Your task to perform on an android device: Open calendar and show me the fourth week of next month Image 0: 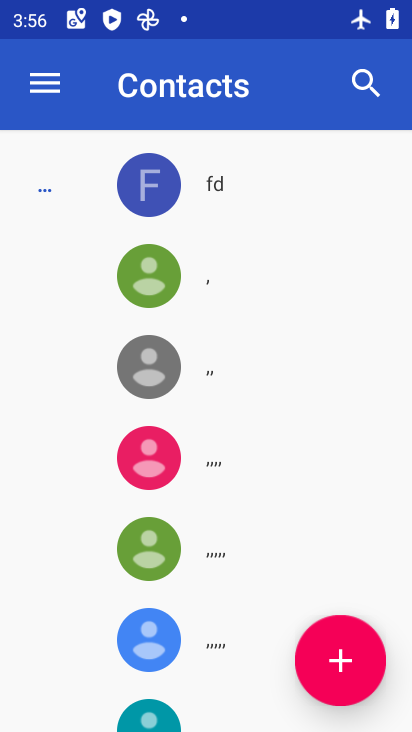
Step 0: drag from (375, 561) to (351, 70)
Your task to perform on an android device: Open calendar and show me the fourth week of next month Image 1: 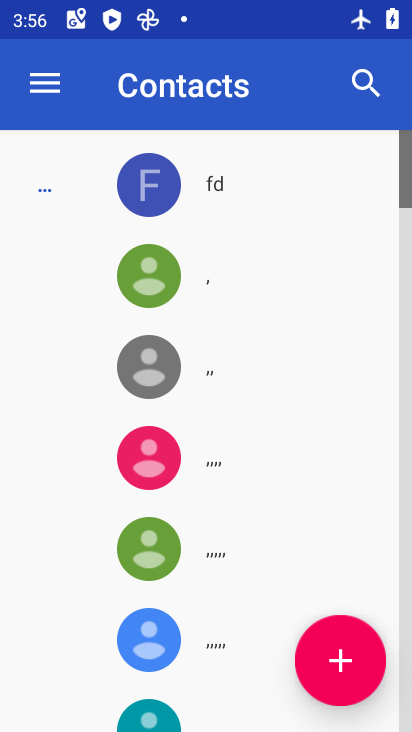
Step 1: press home button
Your task to perform on an android device: Open calendar and show me the fourth week of next month Image 2: 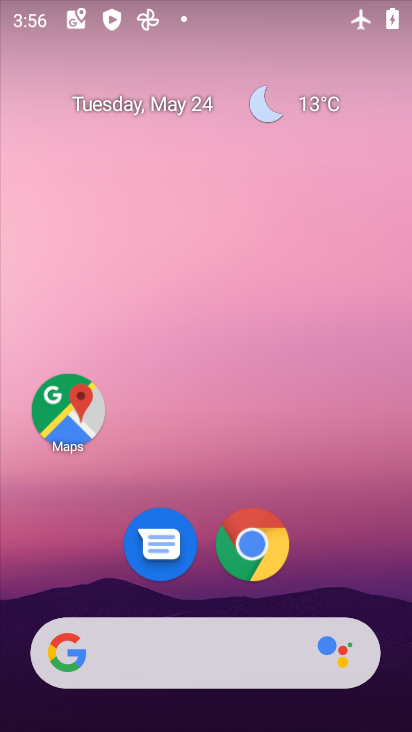
Step 2: drag from (345, 567) to (325, 26)
Your task to perform on an android device: Open calendar and show me the fourth week of next month Image 3: 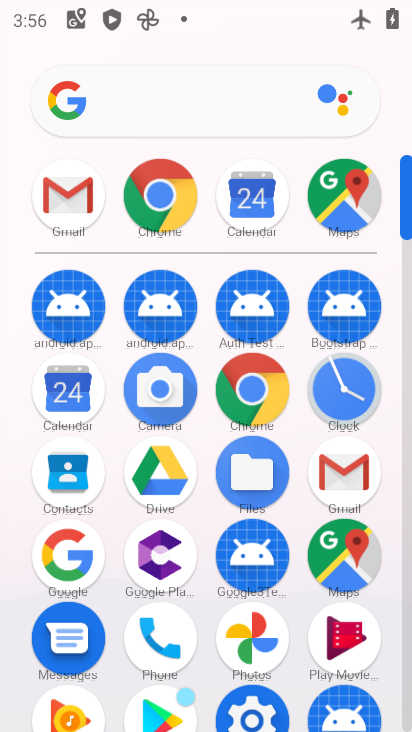
Step 3: click (55, 395)
Your task to perform on an android device: Open calendar and show me the fourth week of next month Image 4: 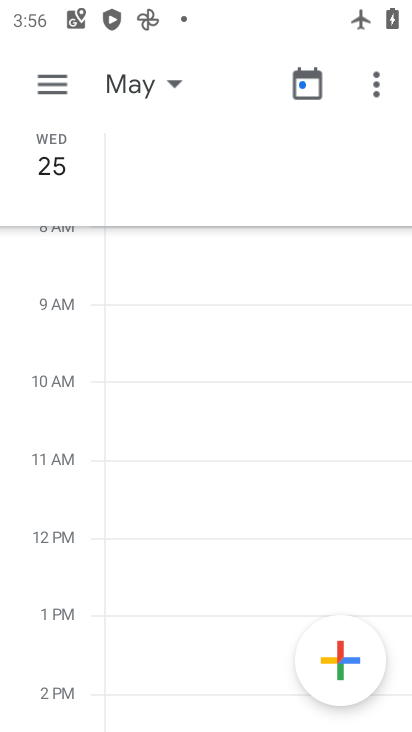
Step 4: click (145, 82)
Your task to perform on an android device: Open calendar and show me the fourth week of next month Image 5: 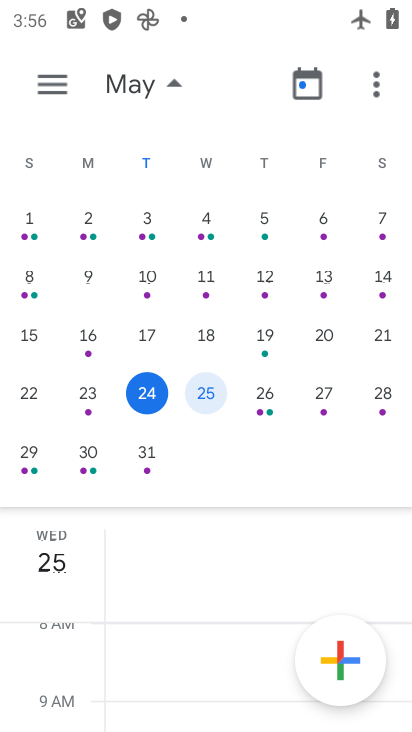
Step 5: drag from (396, 378) to (4, 706)
Your task to perform on an android device: Open calendar and show me the fourth week of next month Image 6: 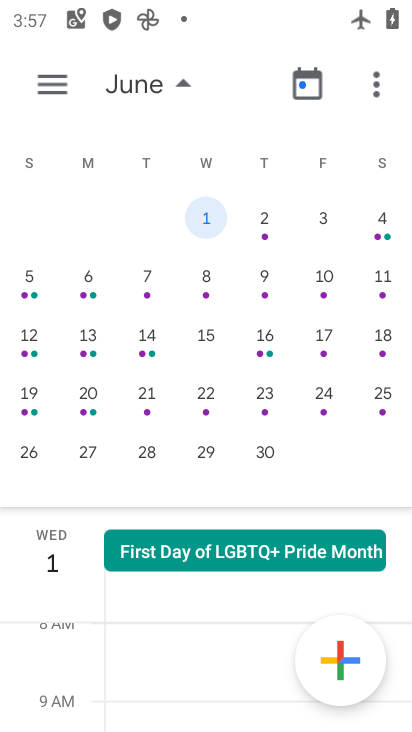
Step 6: click (149, 457)
Your task to perform on an android device: Open calendar and show me the fourth week of next month Image 7: 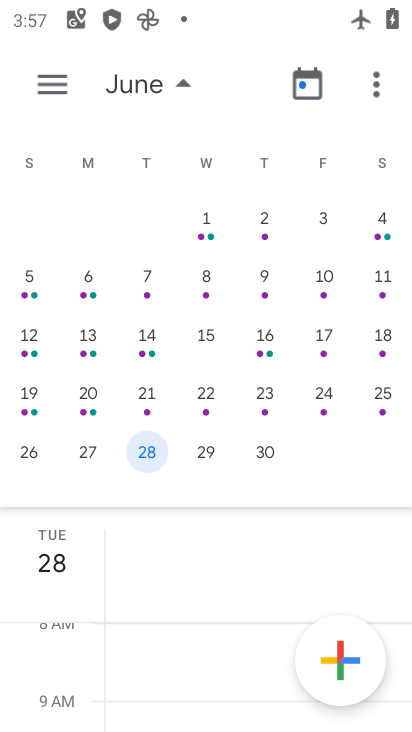
Step 7: task complete